Your task to perform on an android device: turn on translation in the chrome app Image 0: 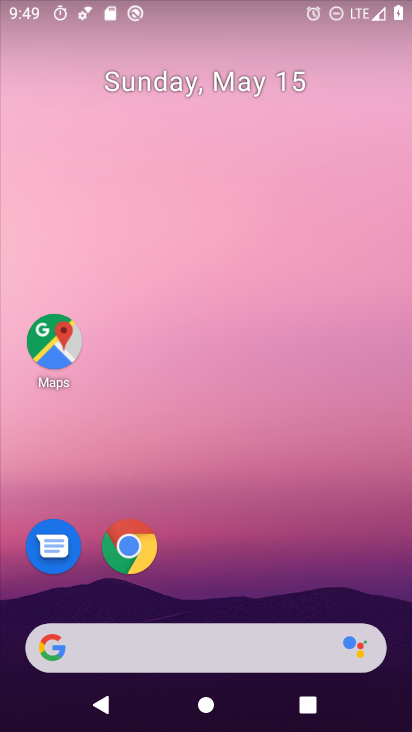
Step 0: click (131, 539)
Your task to perform on an android device: turn on translation in the chrome app Image 1: 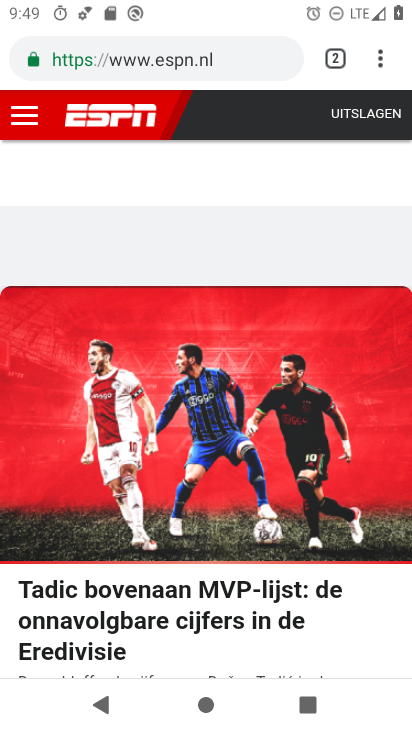
Step 1: click (377, 50)
Your task to perform on an android device: turn on translation in the chrome app Image 2: 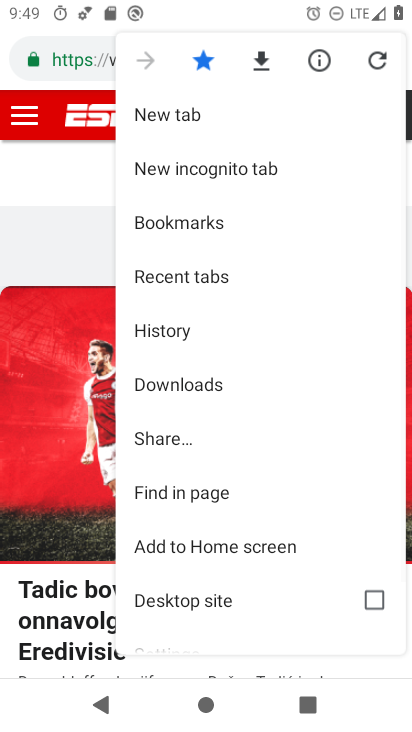
Step 2: drag from (256, 471) to (287, 185)
Your task to perform on an android device: turn on translation in the chrome app Image 3: 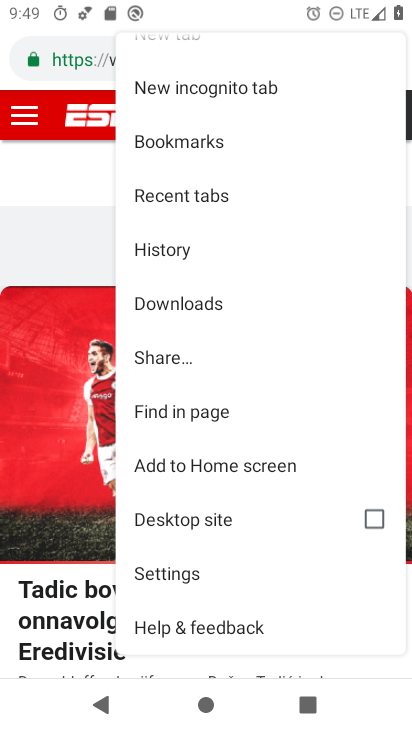
Step 3: click (209, 572)
Your task to perform on an android device: turn on translation in the chrome app Image 4: 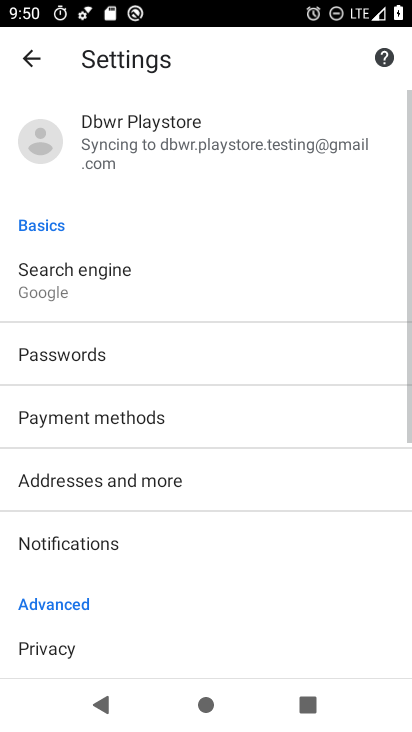
Step 4: drag from (209, 568) to (202, 156)
Your task to perform on an android device: turn on translation in the chrome app Image 5: 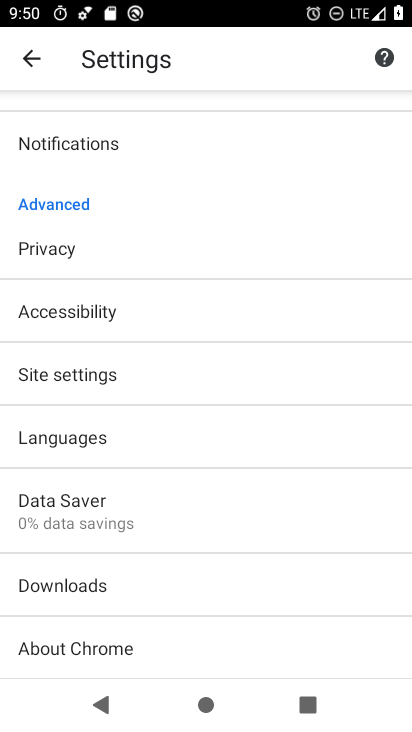
Step 5: click (165, 441)
Your task to perform on an android device: turn on translation in the chrome app Image 6: 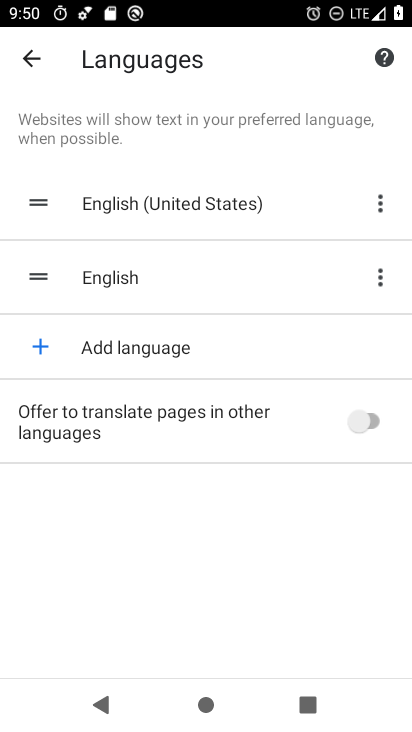
Step 6: click (362, 418)
Your task to perform on an android device: turn on translation in the chrome app Image 7: 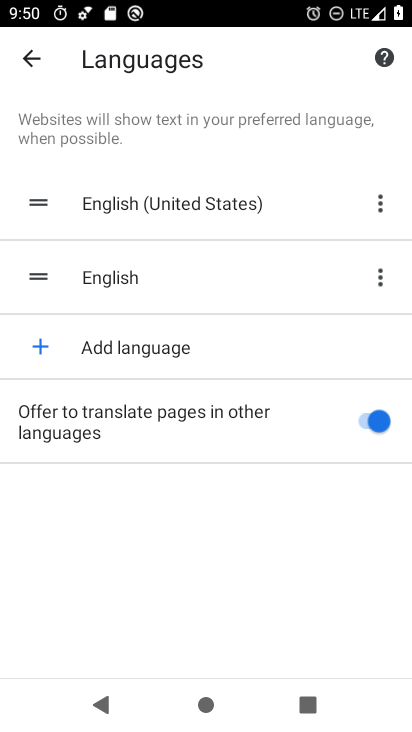
Step 7: task complete